Your task to perform on an android device: Open settings on Google Maps Image 0: 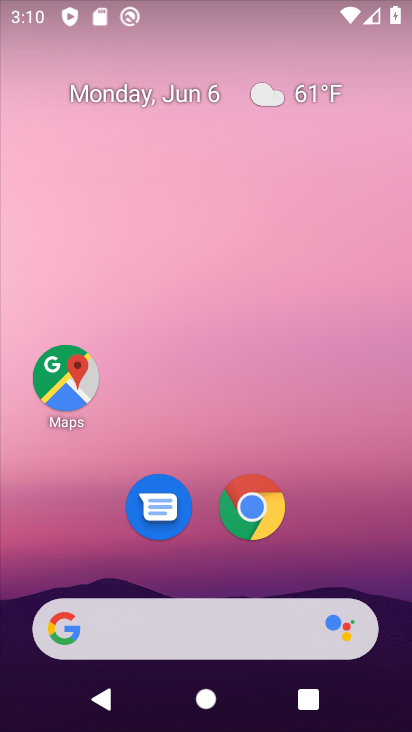
Step 0: click (51, 408)
Your task to perform on an android device: Open settings on Google Maps Image 1: 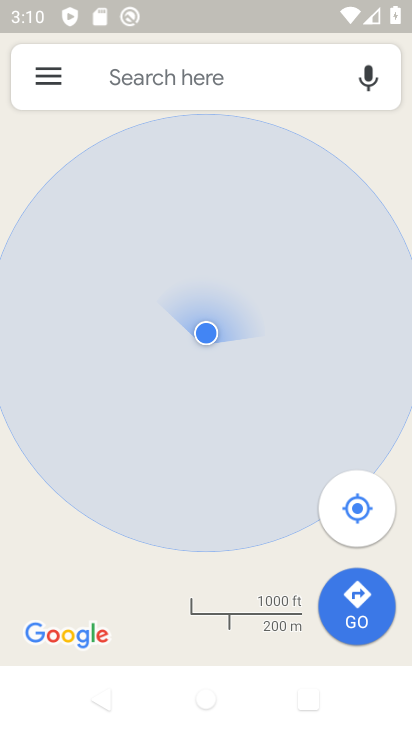
Step 1: click (42, 77)
Your task to perform on an android device: Open settings on Google Maps Image 2: 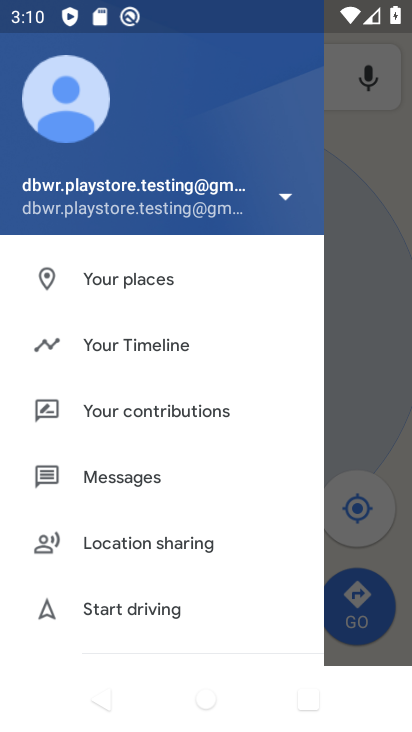
Step 2: drag from (179, 575) to (206, 245)
Your task to perform on an android device: Open settings on Google Maps Image 3: 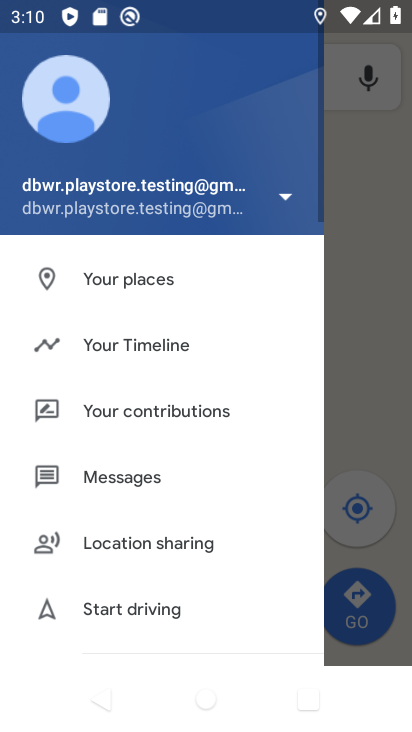
Step 3: drag from (156, 570) to (170, 226)
Your task to perform on an android device: Open settings on Google Maps Image 4: 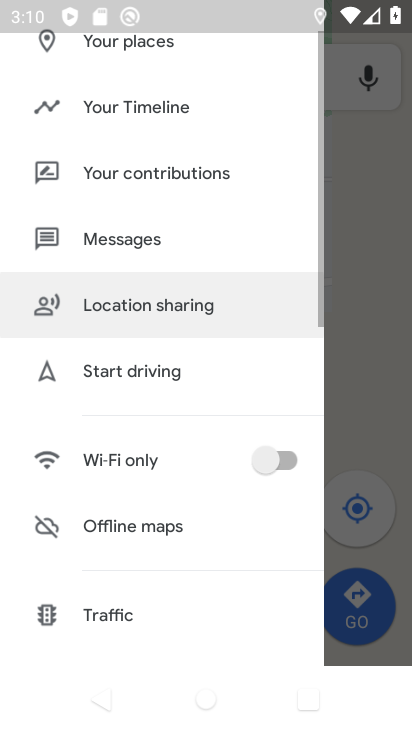
Step 4: drag from (162, 504) to (173, 275)
Your task to perform on an android device: Open settings on Google Maps Image 5: 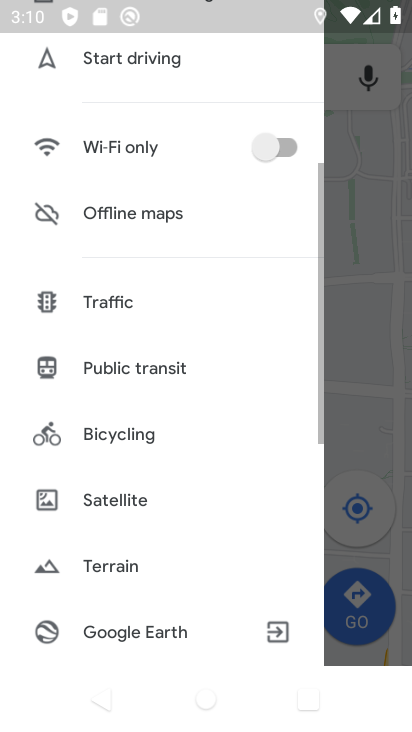
Step 5: drag from (141, 503) to (168, 282)
Your task to perform on an android device: Open settings on Google Maps Image 6: 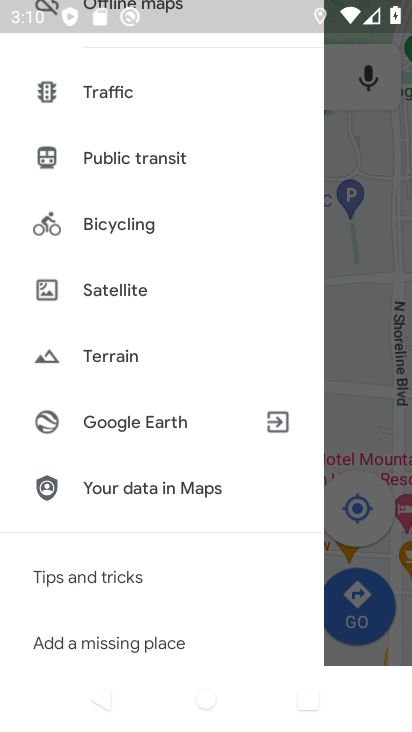
Step 6: drag from (158, 589) to (174, 259)
Your task to perform on an android device: Open settings on Google Maps Image 7: 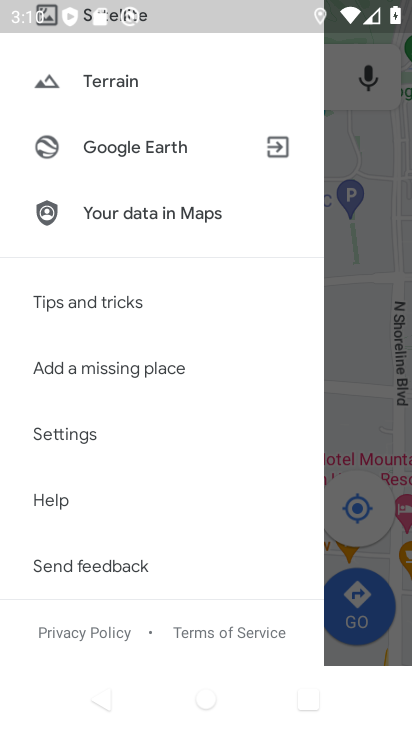
Step 7: click (72, 437)
Your task to perform on an android device: Open settings on Google Maps Image 8: 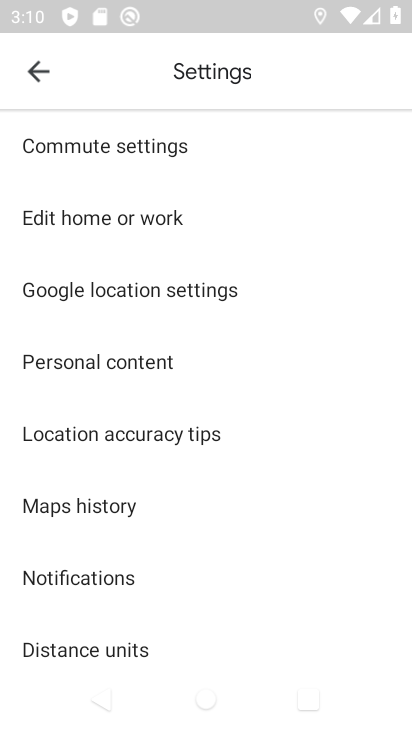
Step 8: task complete